Your task to perform on an android device: Search for vegetarian restaurants on Maps Image 0: 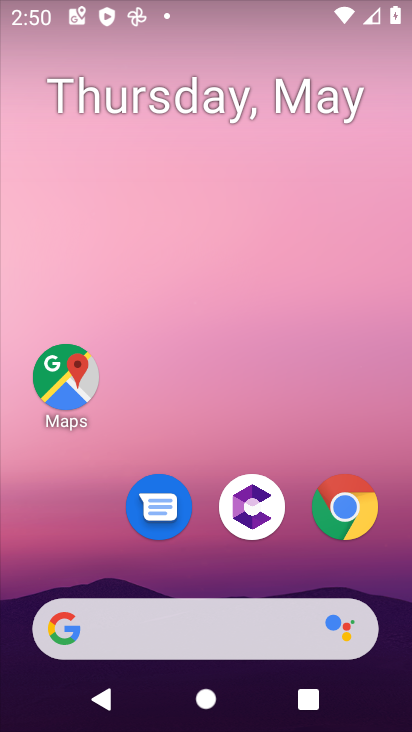
Step 0: press home button
Your task to perform on an android device: Search for vegetarian restaurants on Maps Image 1: 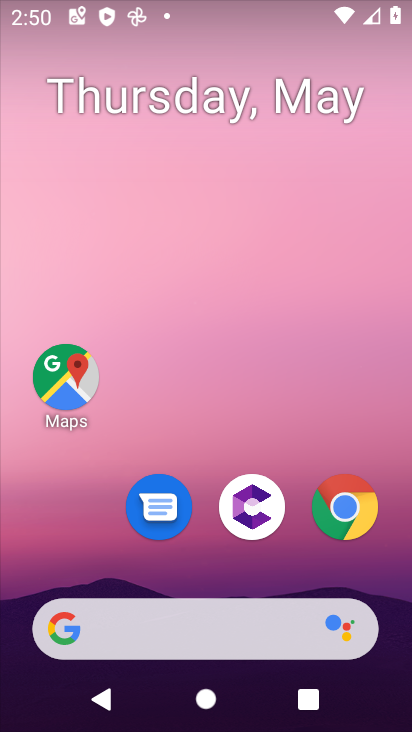
Step 1: click (66, 380)
Your task to perform on an android device: Search for vegetarian restaurants on Maps Image 2: 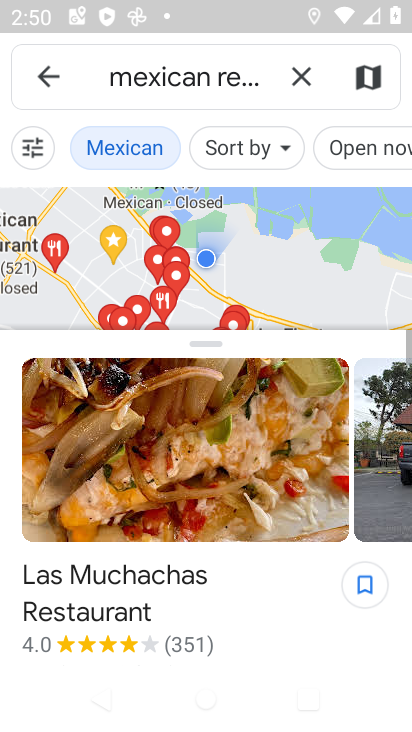
Step 2: click (303, 79)
Your task to perform on an android device: Search for vegetarian restaurants on Maps Image 3: 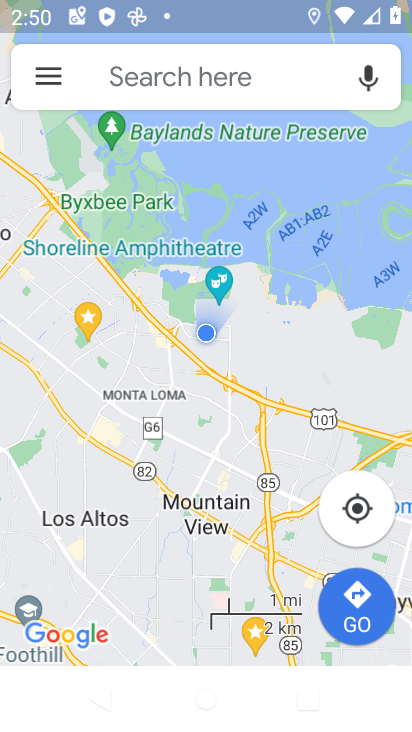
Step 3: click (280, 79)
Your task to perform on an android device: Search for vegetarian restaurants on Maps Image 4: 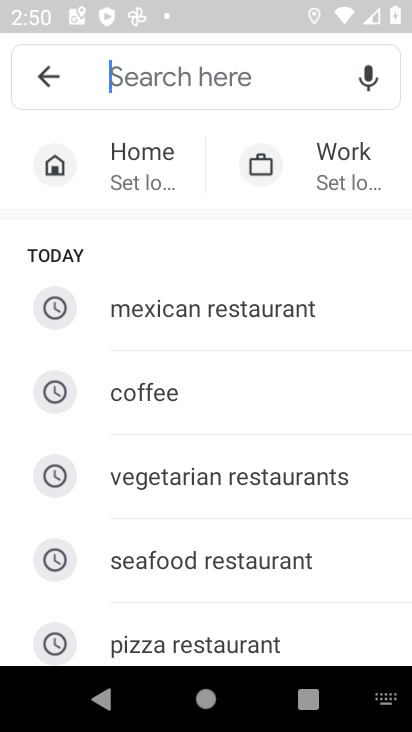
Step 4: click (203, 485)
Your task to perform on an android device: Search for vegetarian restaurants on Maps Image 5: 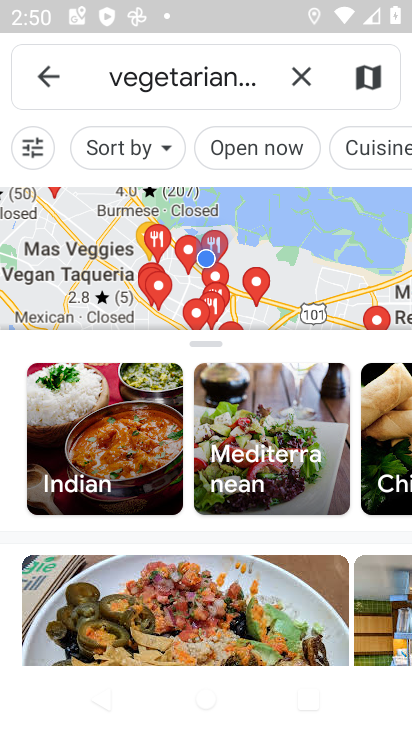
Step 5: task complete